Your task to perform on an android device: Go to settings Image 0: 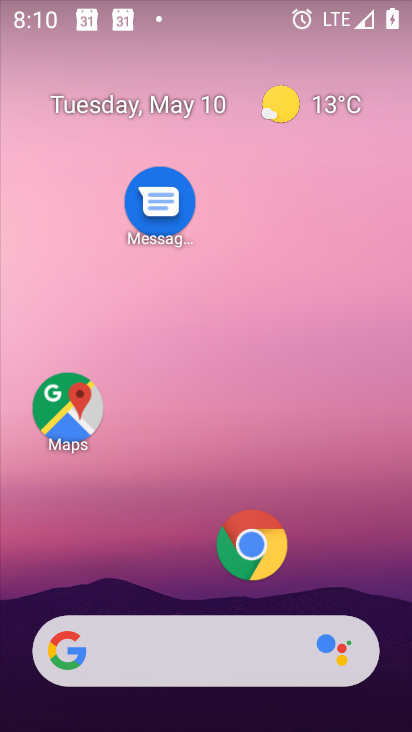
Step 0: drag from (197, 587) to (184, 78)
Your task to perform on an android device: Go to settings Image 1: 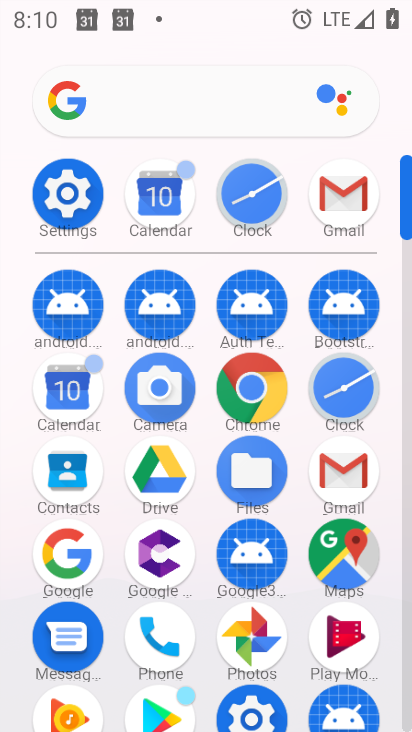
Step 1: click (62, 186)
Your task to perform on an android device: Go to settings Image 2: 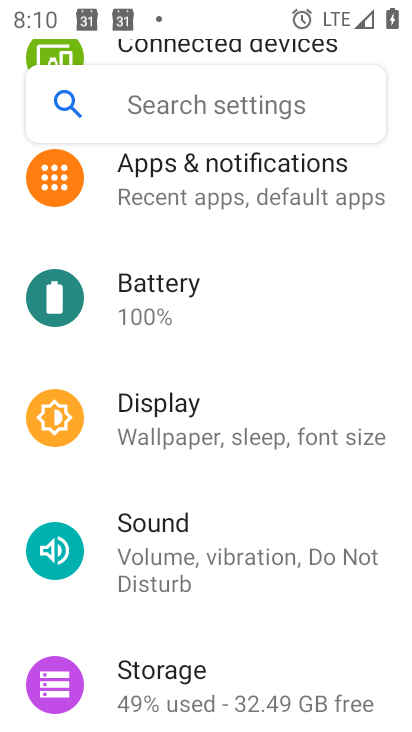
Step 2: task complete